Your task to perform on an android device: What is the news today? Image 0: 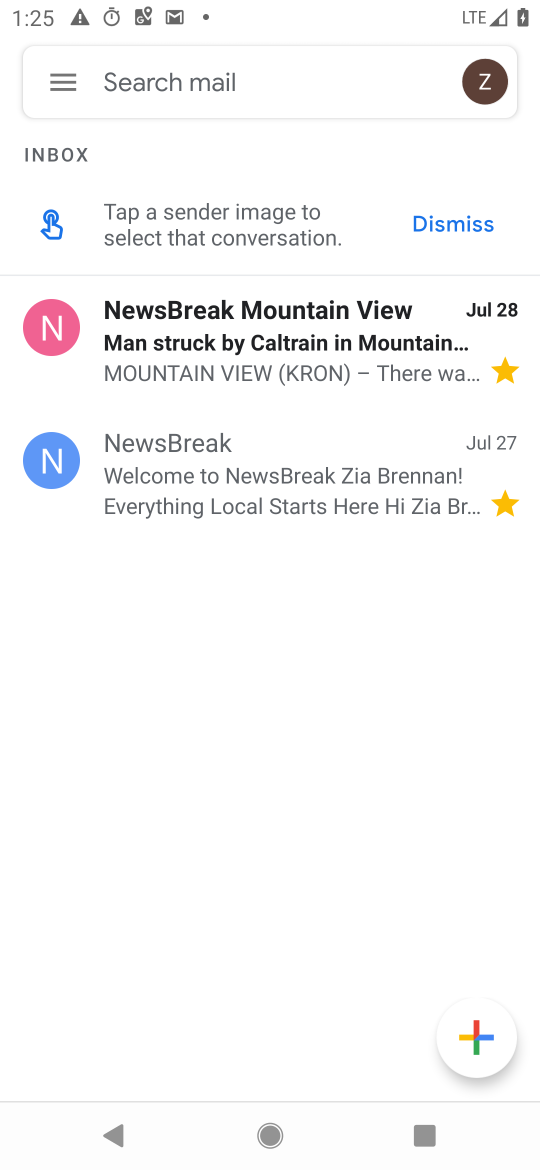
Step 0: drag from (330, 982) to (263, 375)
Your task to perform on an android device: What is the news today? Image 1: 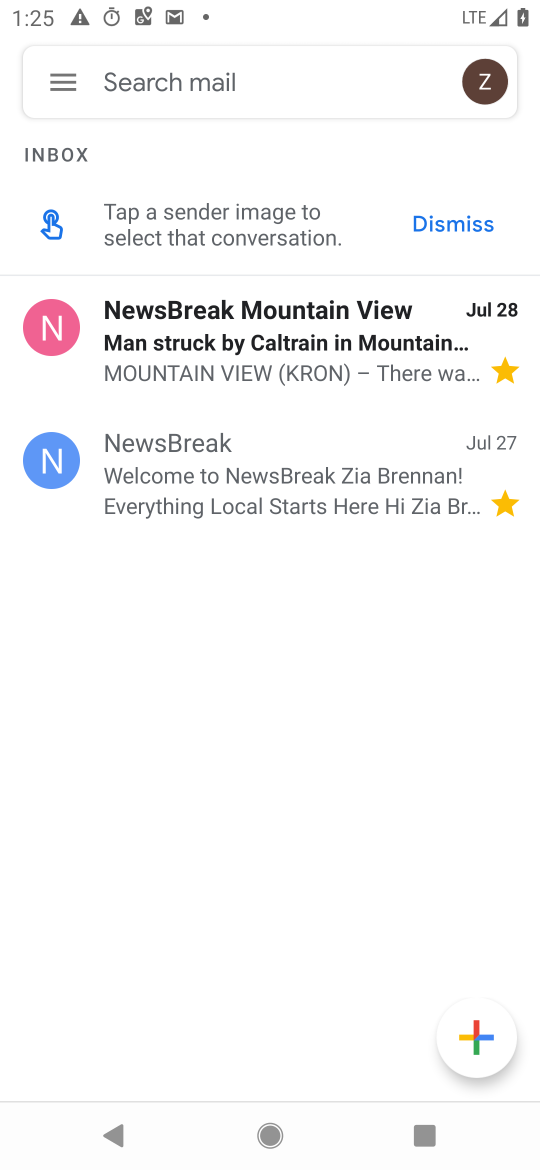
Step 1: drag from (306, 509) to (523, 1116)
Your task to perform on an android device: What is the news today? Image 2: 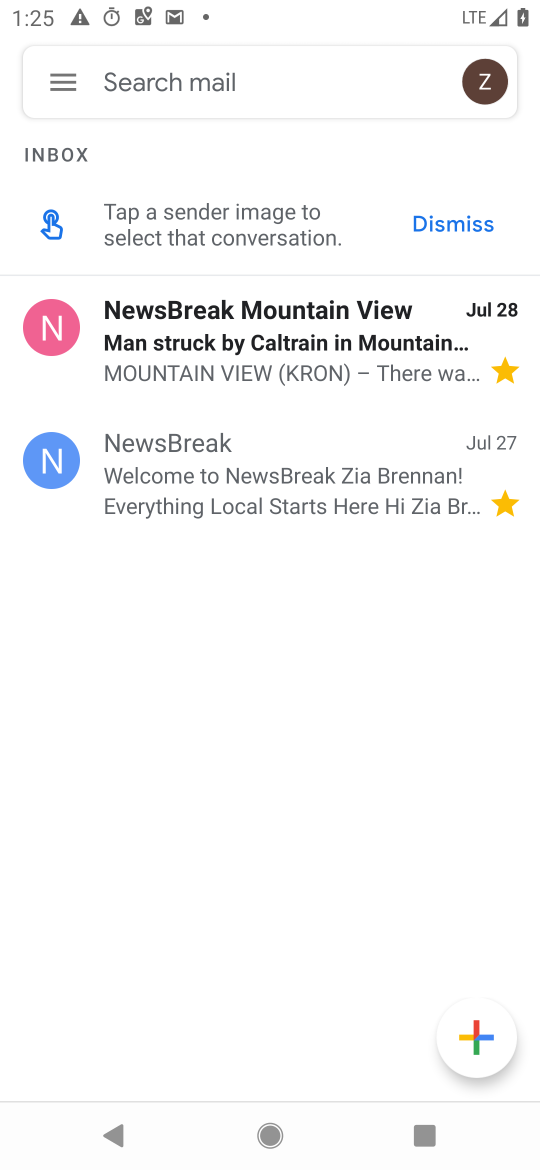
Step 2: drag from (219, 610) to (426, 1168)
Your task to perform on an android device: What is the news today? Image 3: 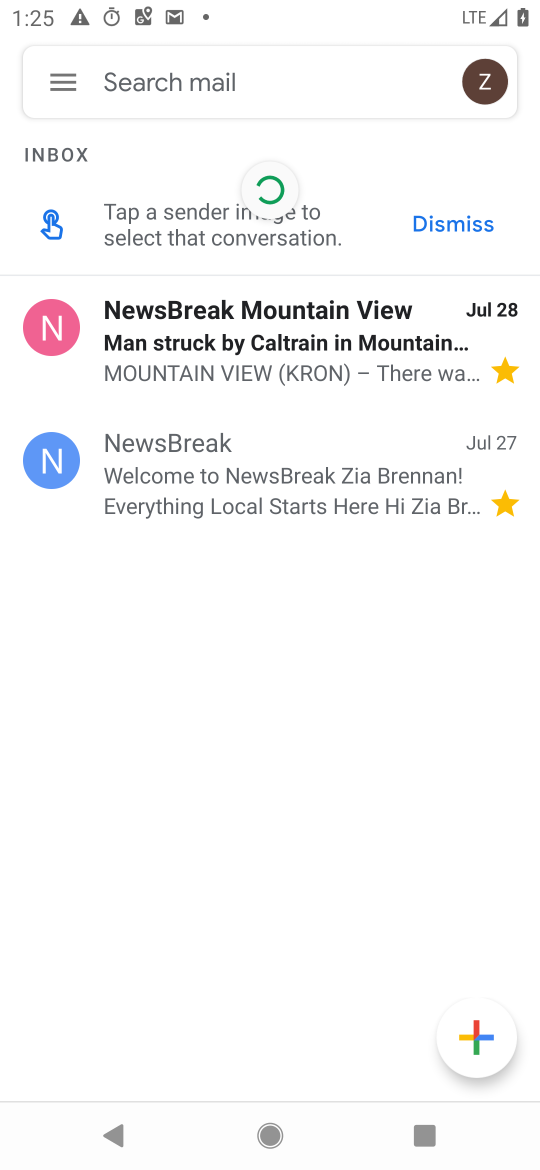
Step 3: drag from (373, 631) to (477, 868)
Your task to perform on an android device: What is the news today? Image 4: 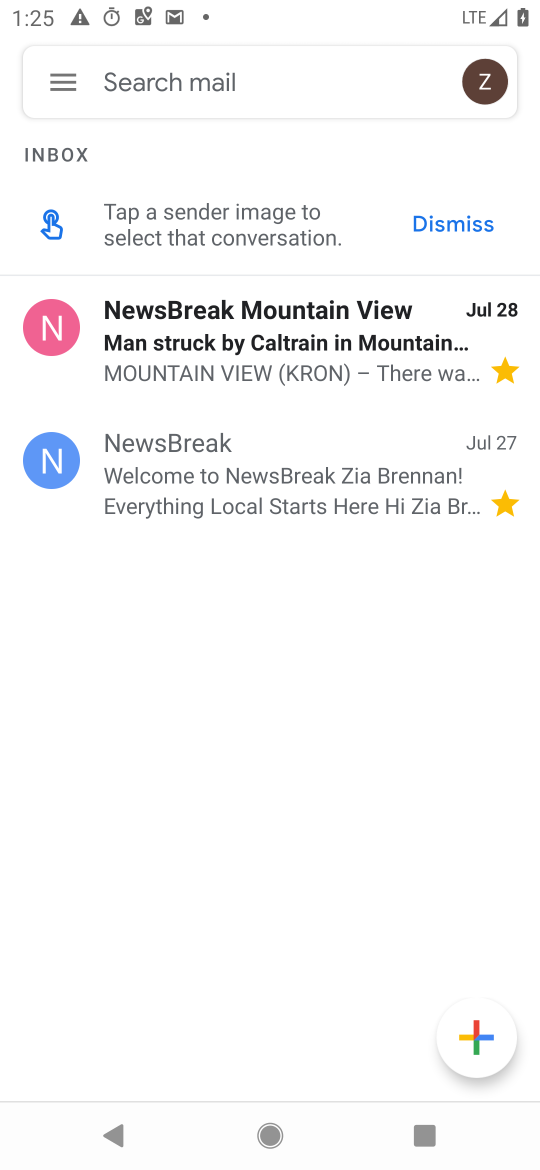
Step 4: drag from (272, 613) to (404, 1169)
Your task to perform on an android device: What is the news today? Image 5: 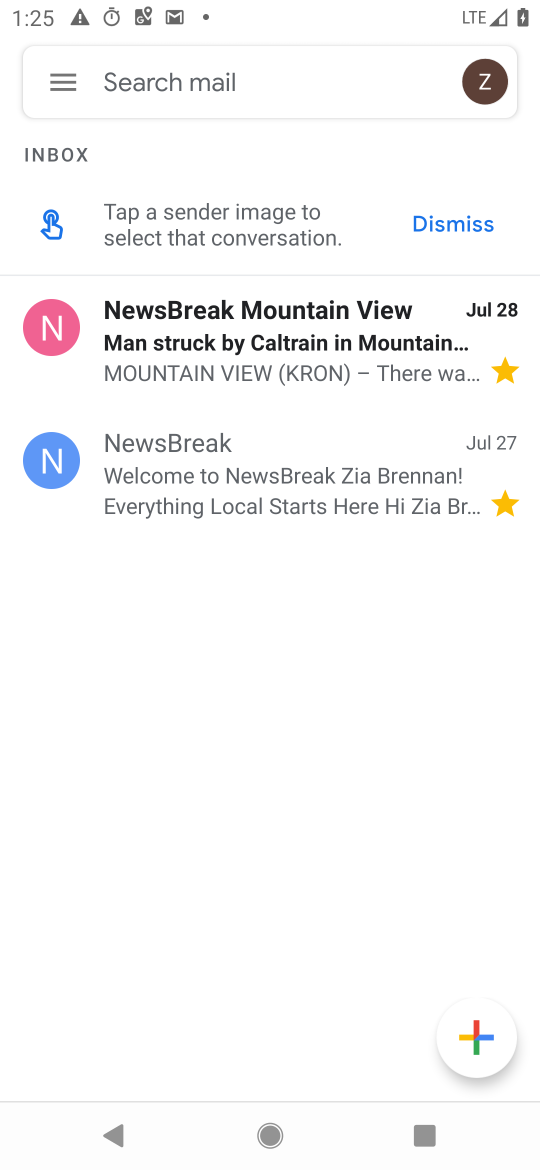
Step 5: drag from (287, 979) to (270, 742)
Your task to perform on an android device: What is the news today? Image 6: 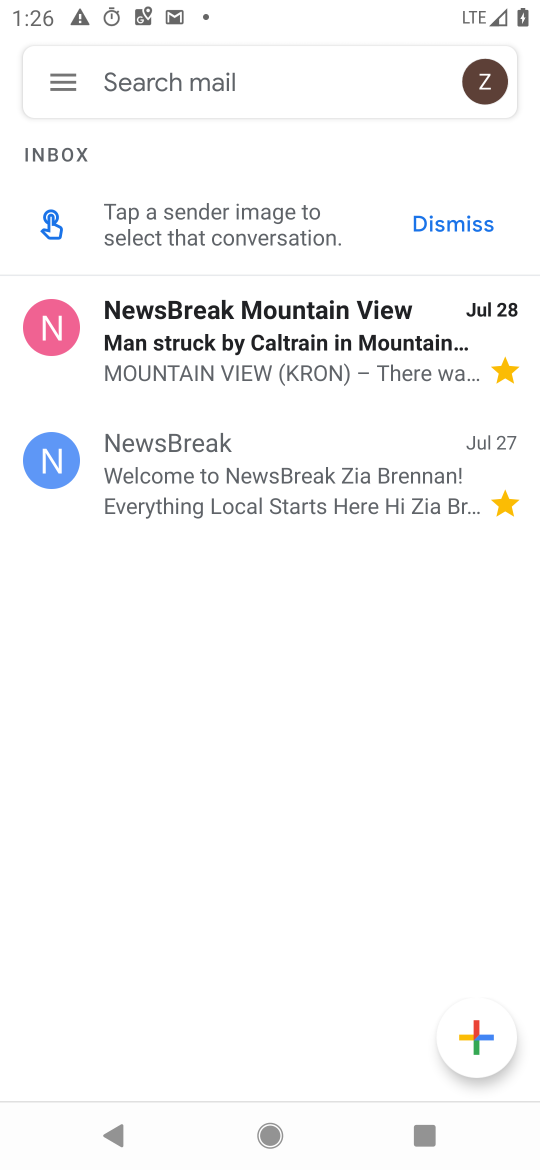
Step 6: drag from (282, 895) to (254, 680)
Your task to perform on an android device: What is the news today? Image 7: 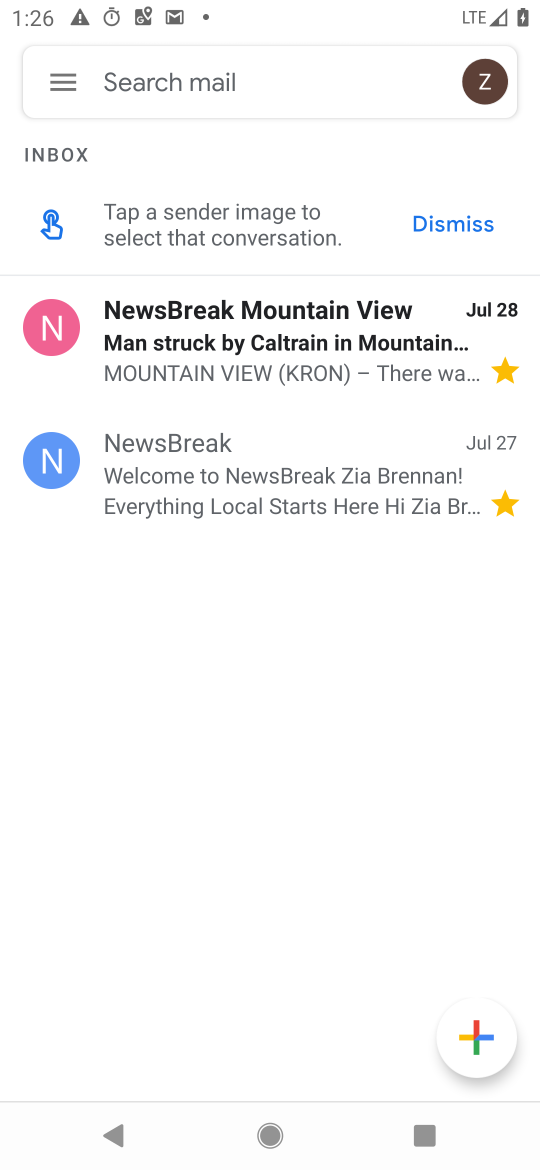
Step 7: drag from (86, 933) to (481, 1160)
Your task to perform on an android device: What is the news today? Image 8: 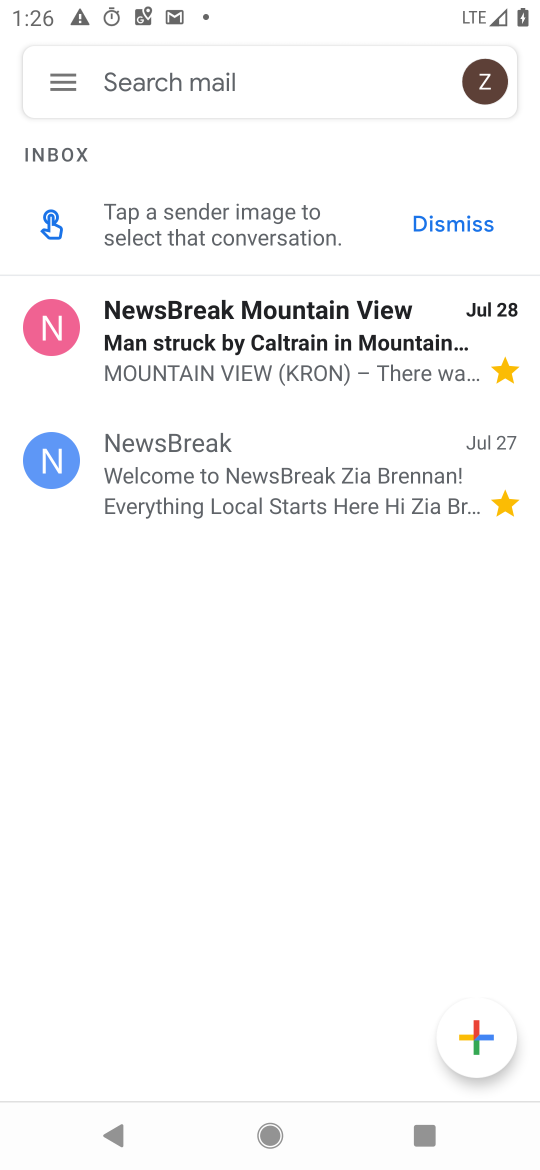
Step 8: click (288, 79)
Your task to perform on an android device: What is the news today? Image 9: 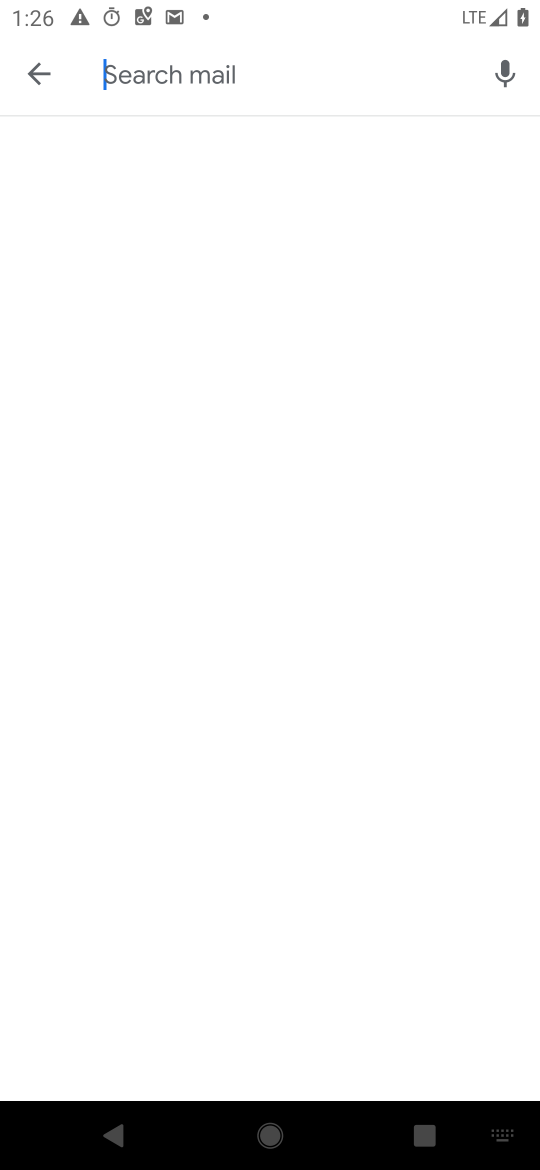
Step 9: press home button
Your task to perform on an android device: What is the news today? Image 10: 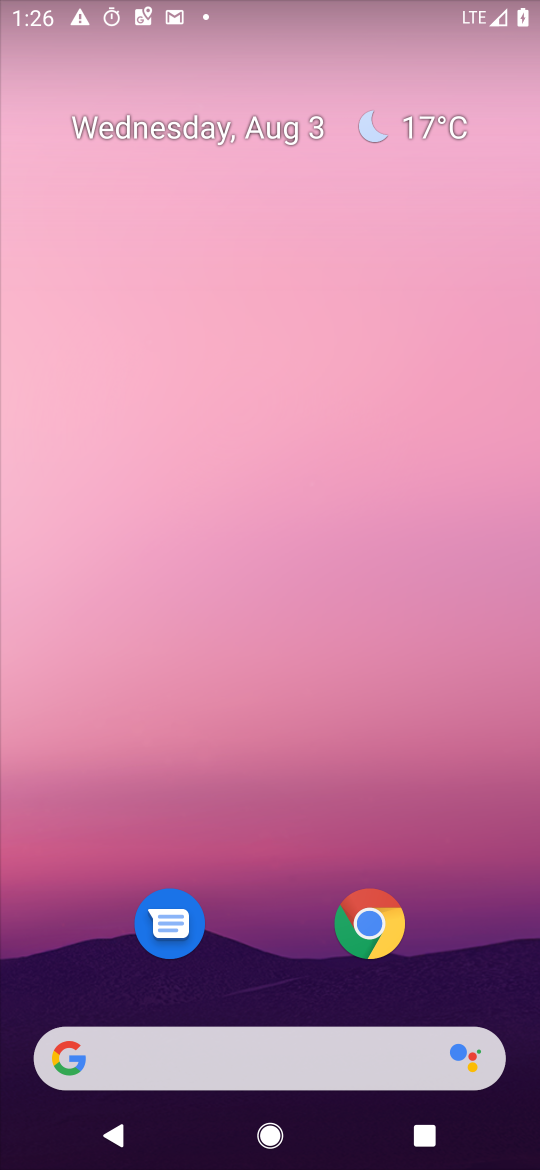
Step 10: drag from (259, 958) to (282, 0)
Your task to perform on an android device: What is the news today? Image 11: 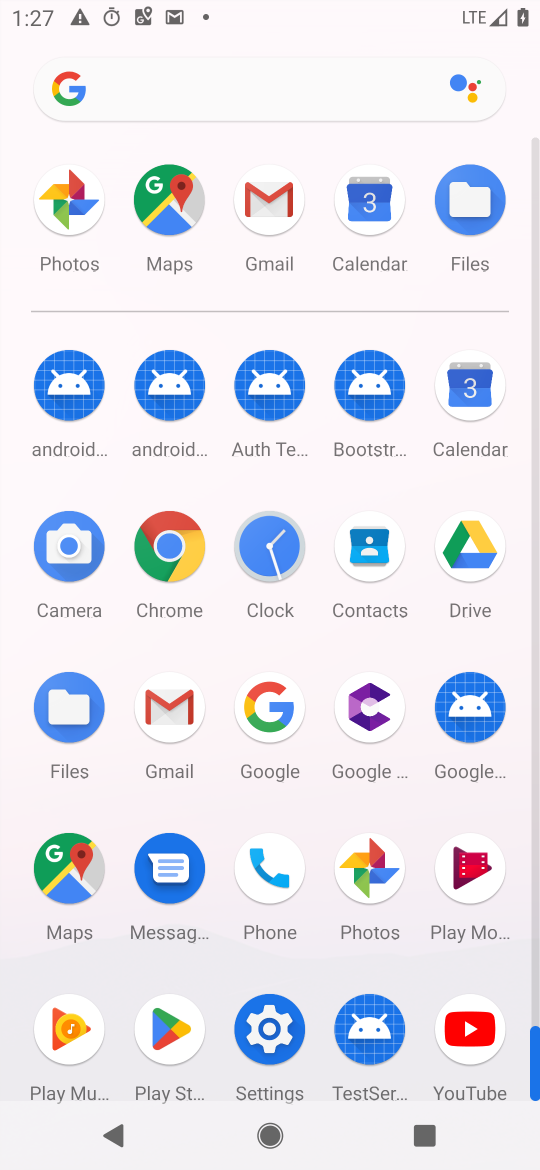
Step 11: drag from (326, 915) to (301, 371)
Your task to perform on an android device: What is the news today? Image 12: 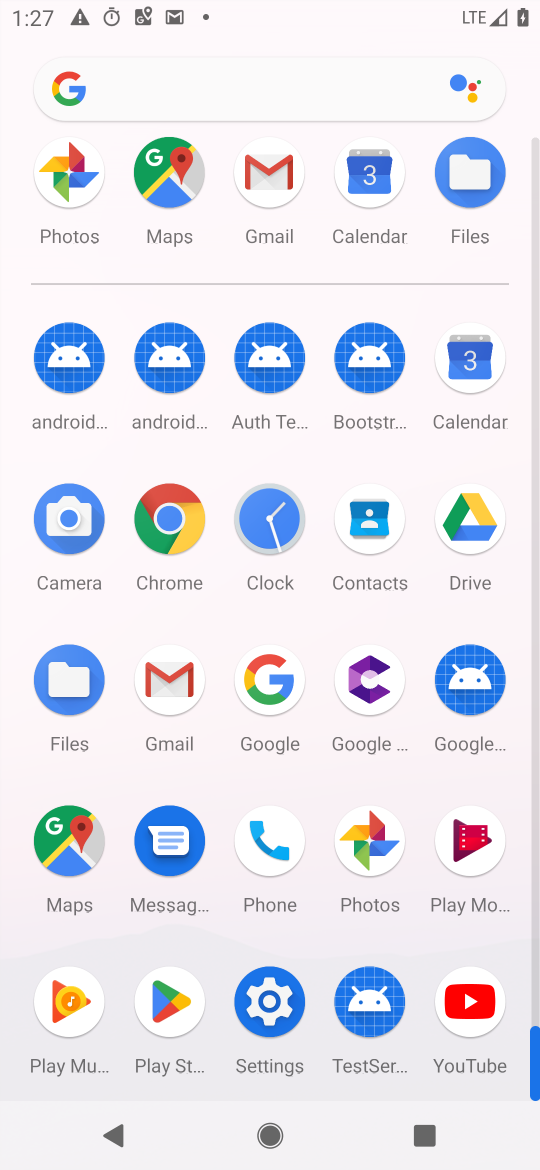
Step 12: click (256, 82)
Your task to perform on an android device: What is the news today? Image 13: 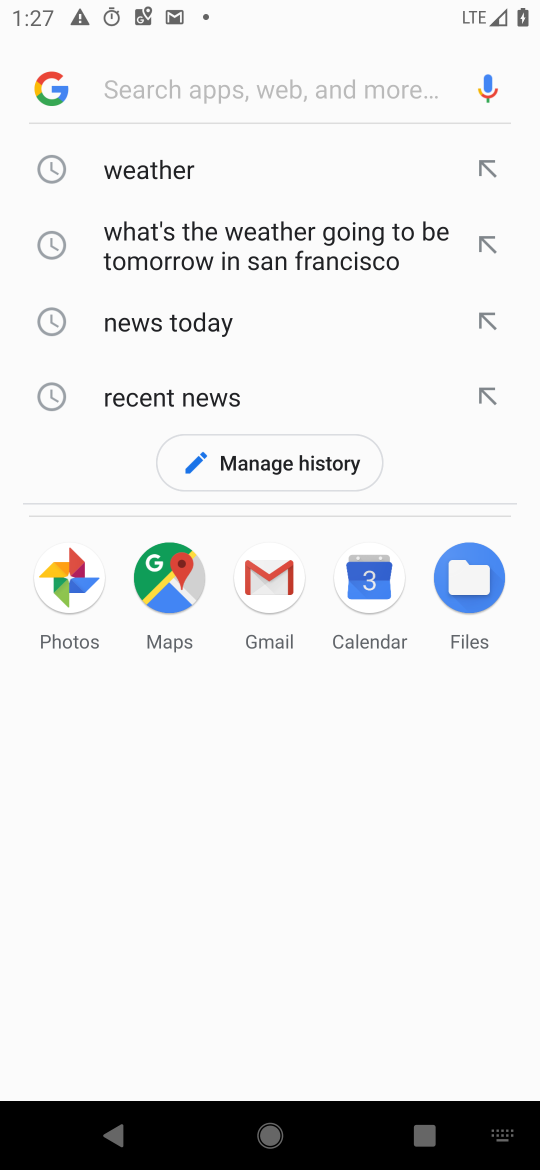
Step 13: click (455, 1160)
Your task to perform on an android device: What is the news today? Image 14: 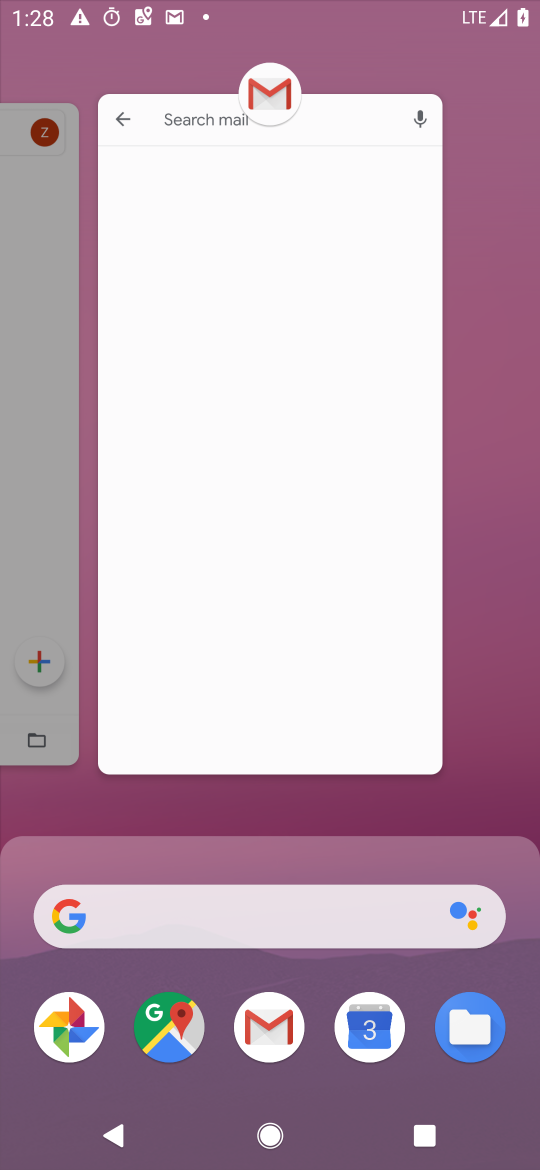
Step 14: click (203, 965)
Your task to perform on an android device: What is the news today? Image 15: 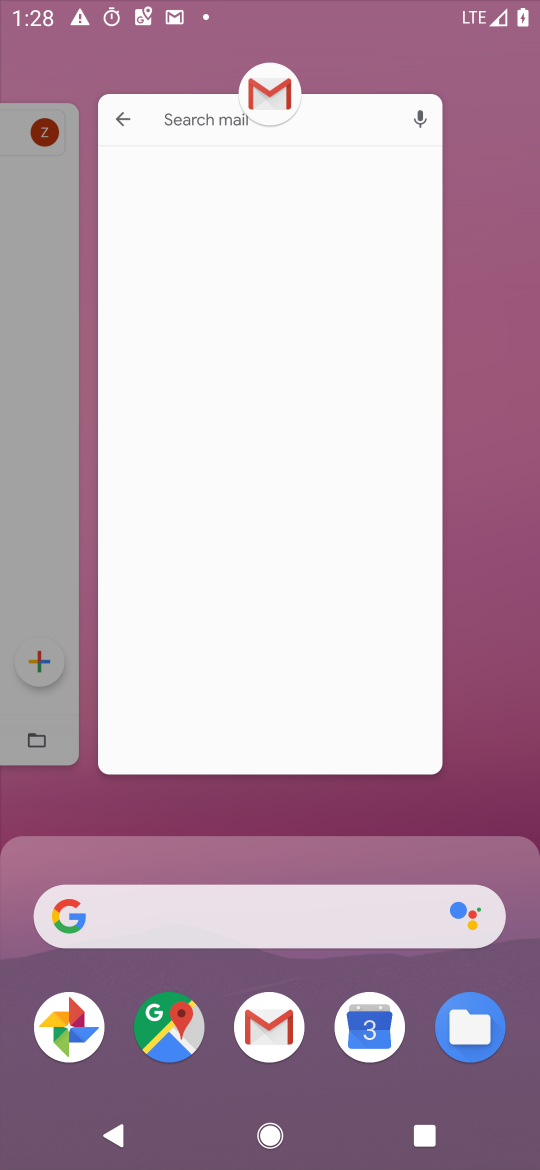
Step 15: click (213, 932)
Your task to perform on an android device: What is the news today? Image 16: 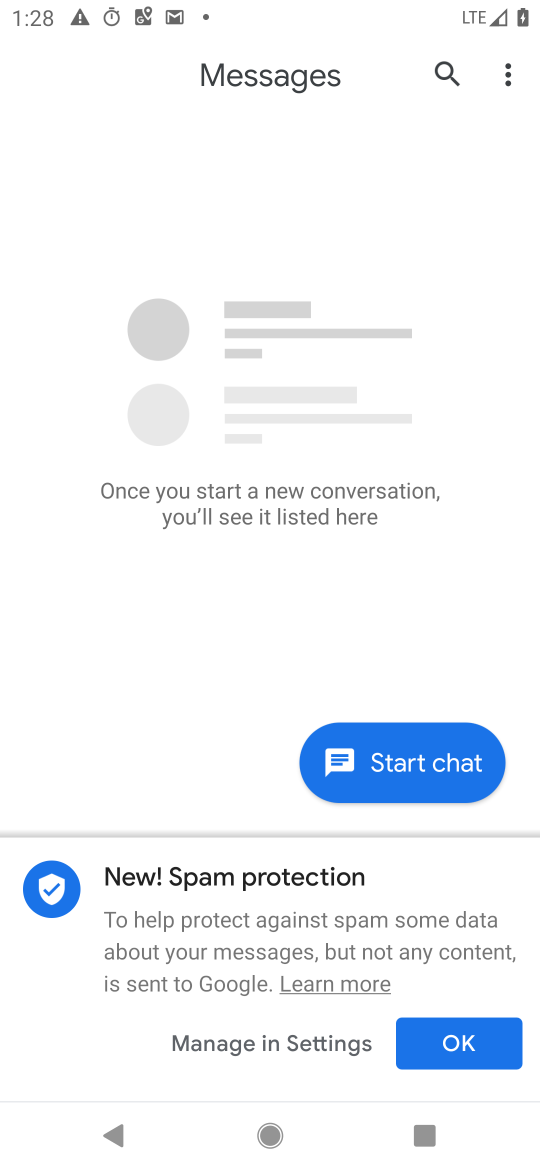
Step 16: press home button
Your task to perform on an android device: What is the news today? Image 17: 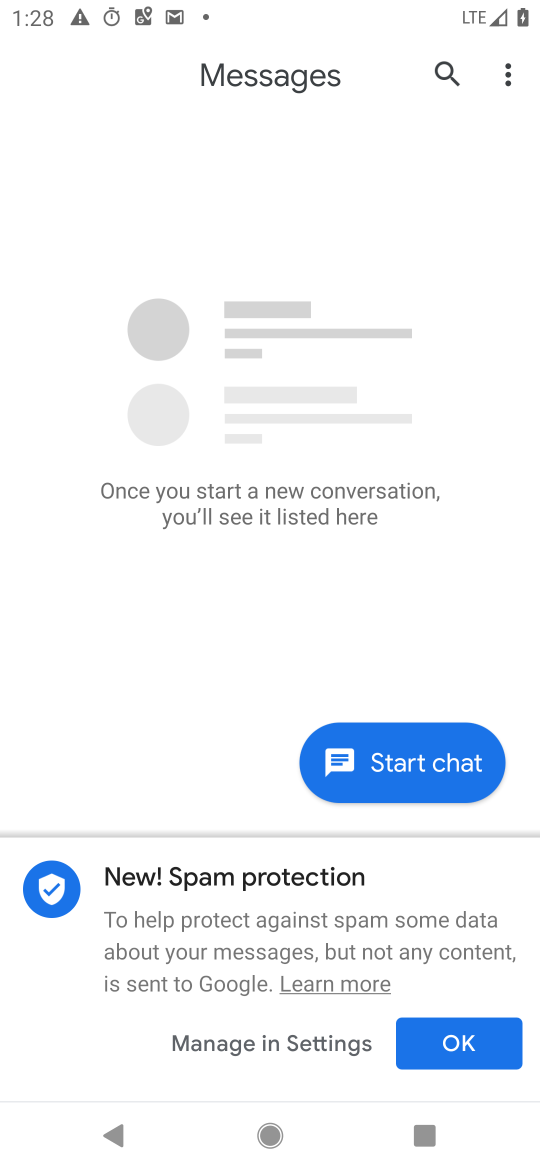
Step 17: press home button
Your task to perform on an android device: What is the news today? Image 18: 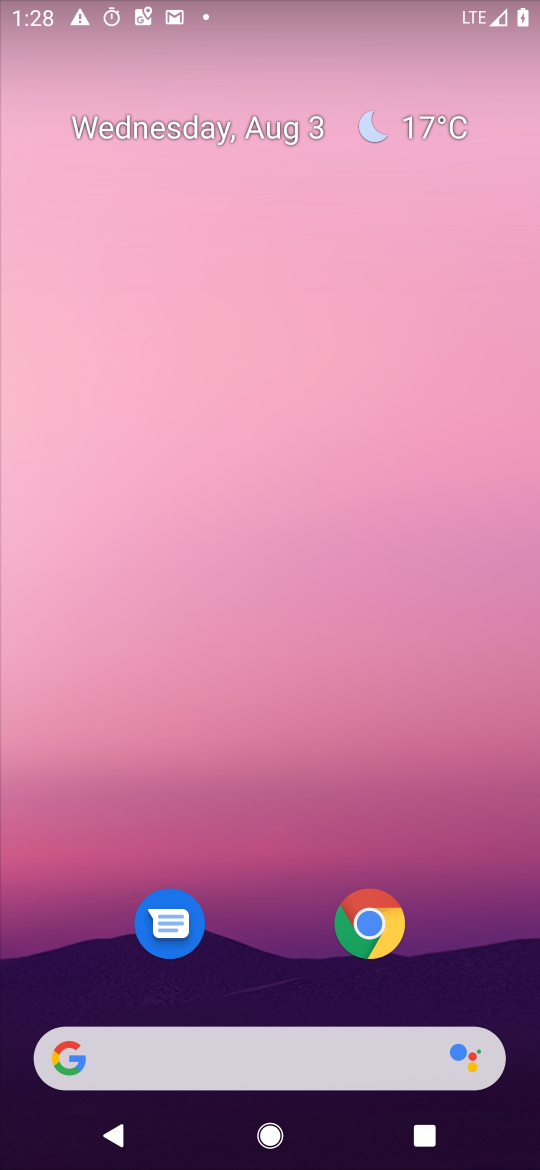
Step 18: press home button
Your task to perform on an android device: What is the news today? Image 19: 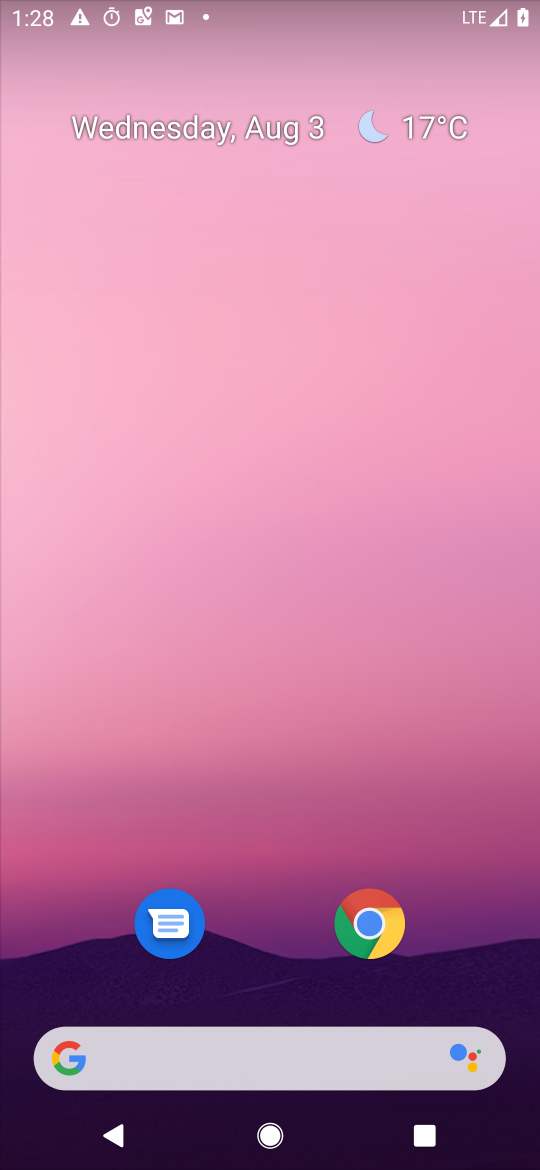
Step 19: drag from (285, 963) to (255, 2)
Your task to perform on an android device: What is the news today? Image 20: 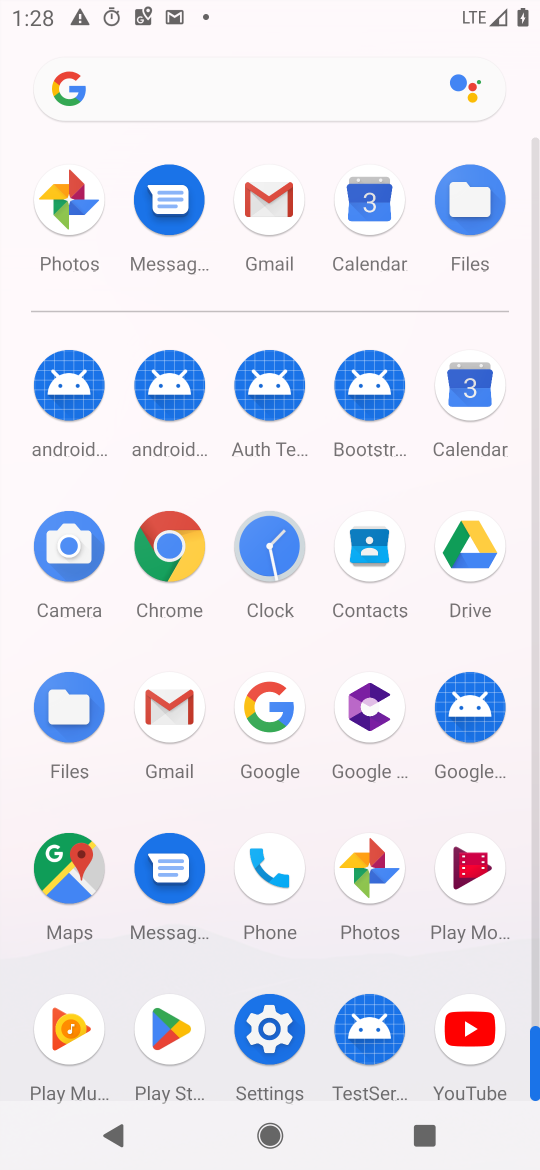
Step 20: click (205, 77)
Your task to perform on an android device: What is the news today? Image 21: 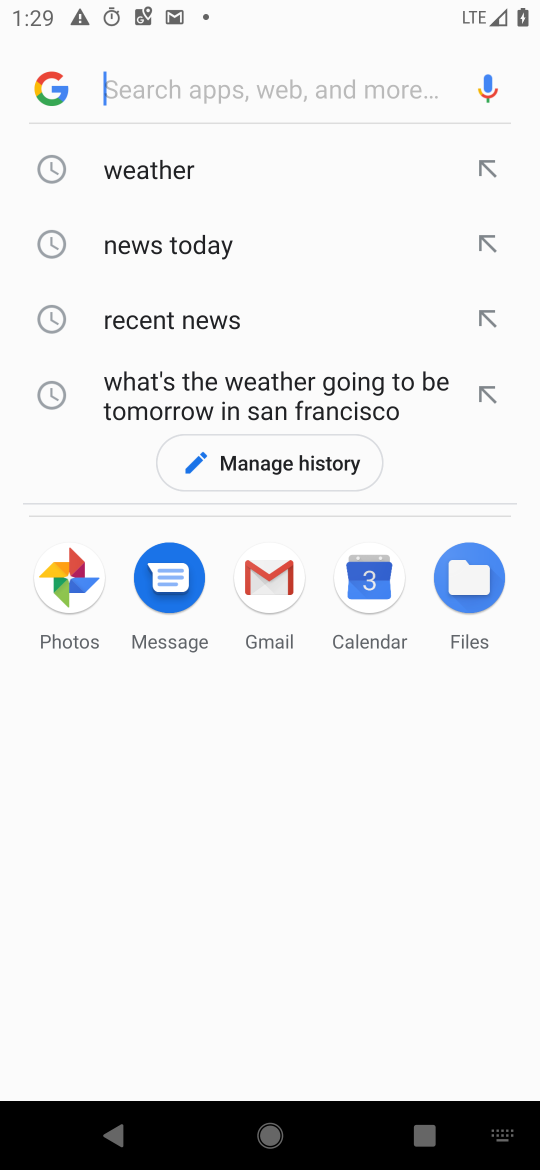
Step 21: click (172, 238)
Your task to perform on an android device: What is the news today? Image 22: 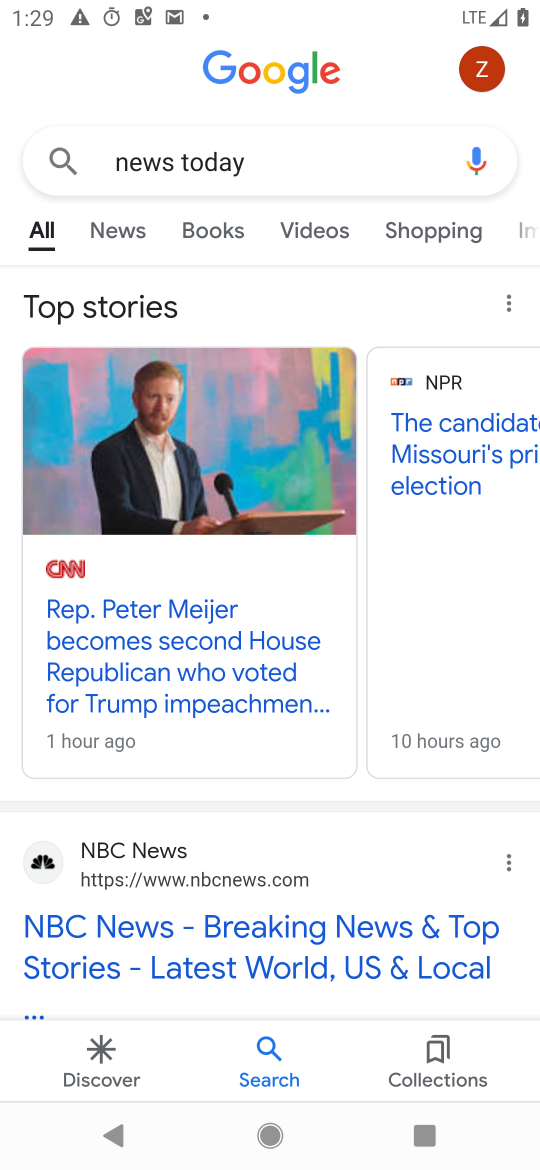
Step 22: task complete